Your task to perform on an android device: delete the emails in spam in the gmail app Image 0: 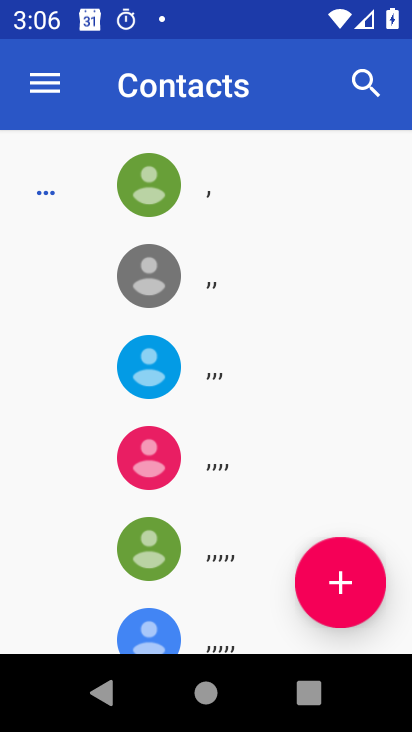
Step 0: press home button
Your task to perform on an android device: delete the emails in spam in the gmail app Image 1: 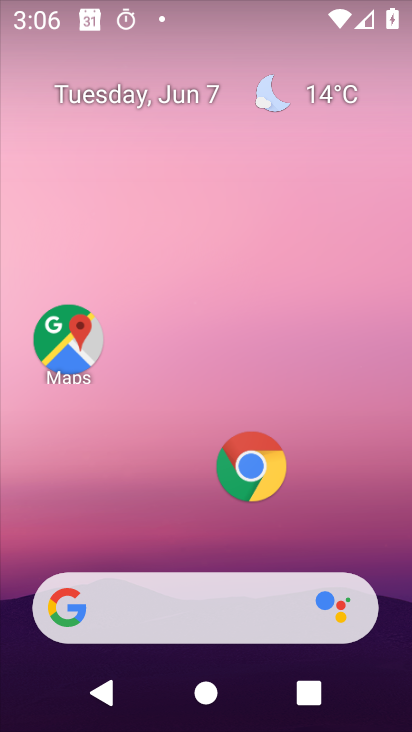
Step 1: drag from (161, 703) to (184, 153)
Your task to perform on an android device: delete the emails in spam in the gmail app Image 2: 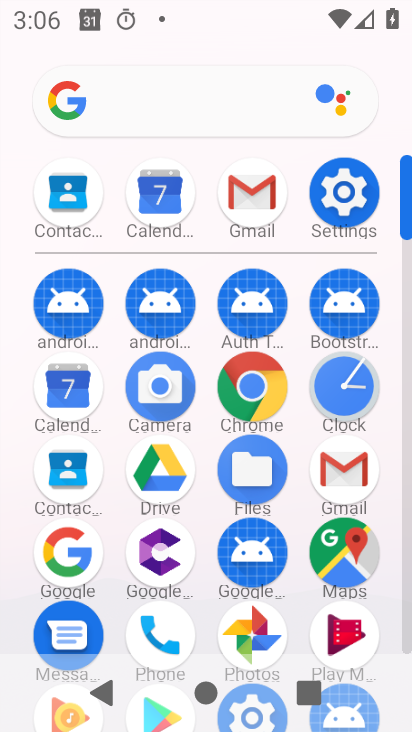
Step 2: click (257, 199)
Your task to perform on an android device: delete the emails in spam in the gmail app Image 3: 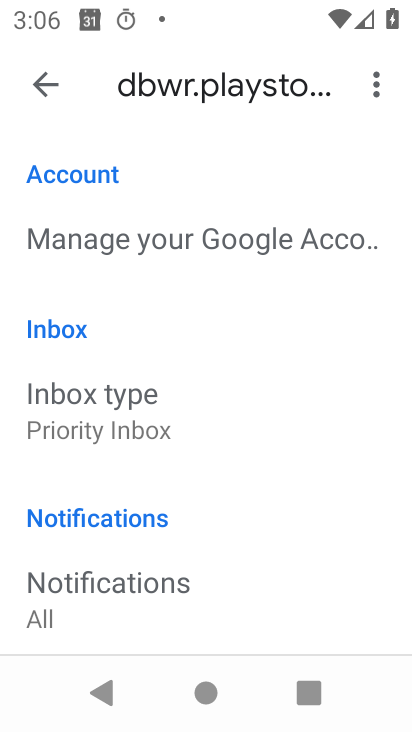
Step 3: click (44, 71)
Your task to perform on an android device: delete the emails in spam in the gmail app Image 4: 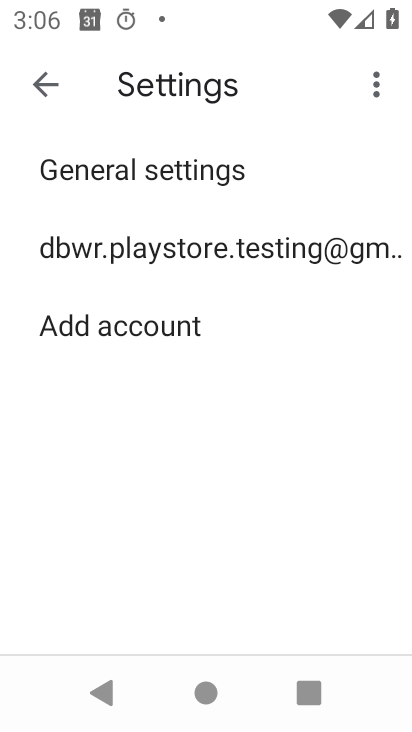
Step 4: click (45, 90)
Your task to perform on an android device: delete the emails in spam in the gmail app Image 5: 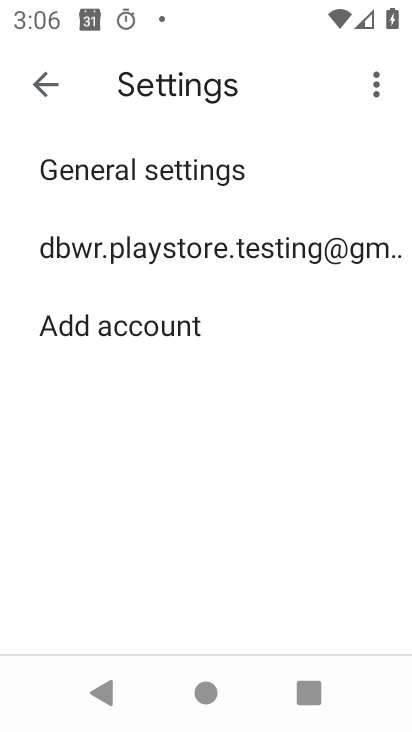
Step 5: click (42, 71)
Your task to perform on an android device: delete the emails in spam in the gmail app Image 6: 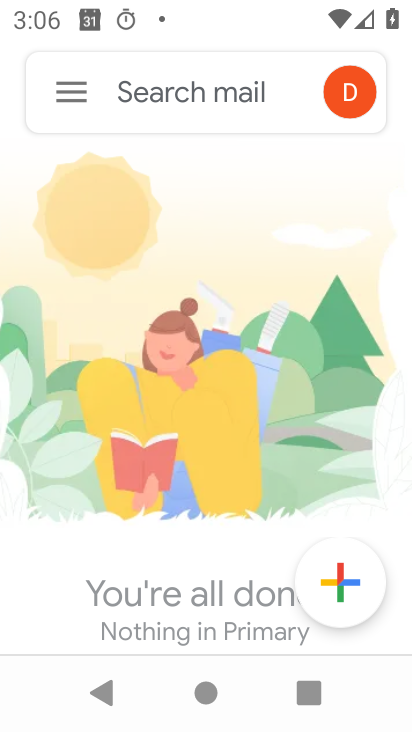
Step 6: click (60, 85)
Your task to perform on an android device: delete the emails in spam in the gmail app Image 7: 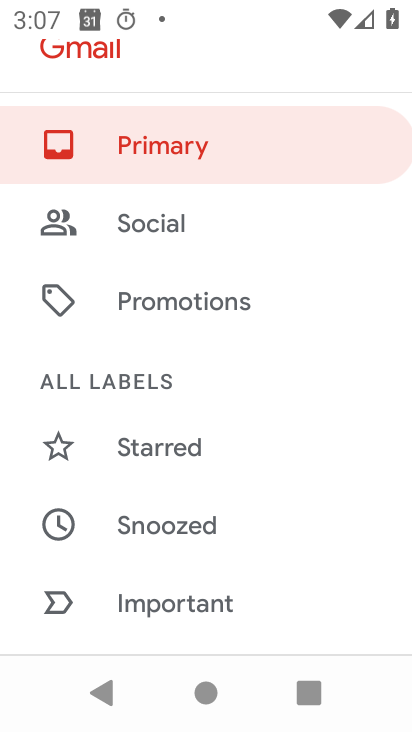
Step 7: drag from (306, 603) to (301, 170)
Your task to perform on an android device: delete the emails in spam in the gmail app Image 8: 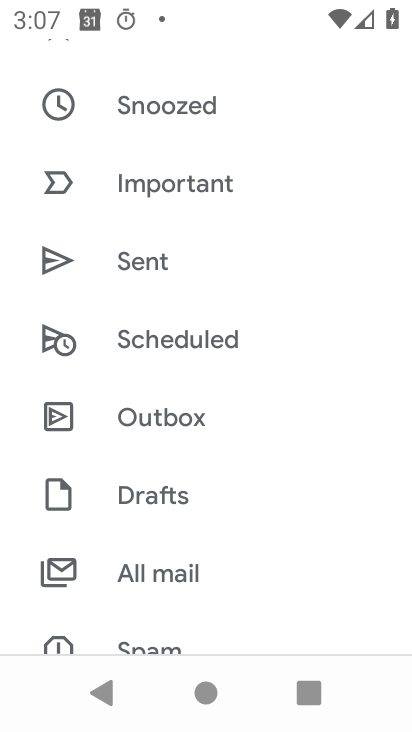
Step 8: drag from (293, 594) to (281, 280)
Your task to perform on an android device: delete the emails in spam in the gmail app Image 9: 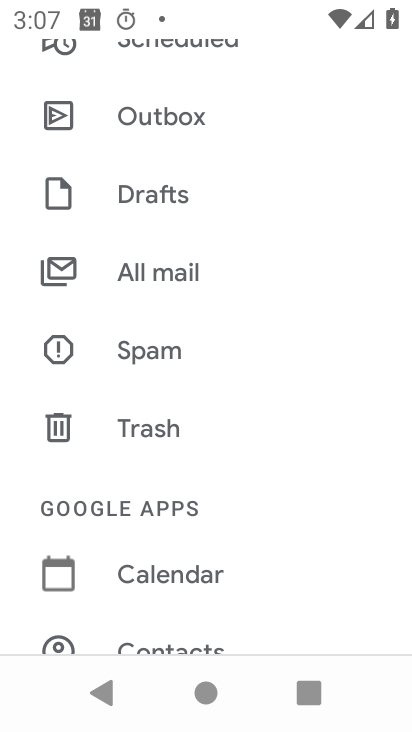
Step 9: click (149, 352)
Your task to perform on an android device: delete the emails in spam in the gmail app Image 10: 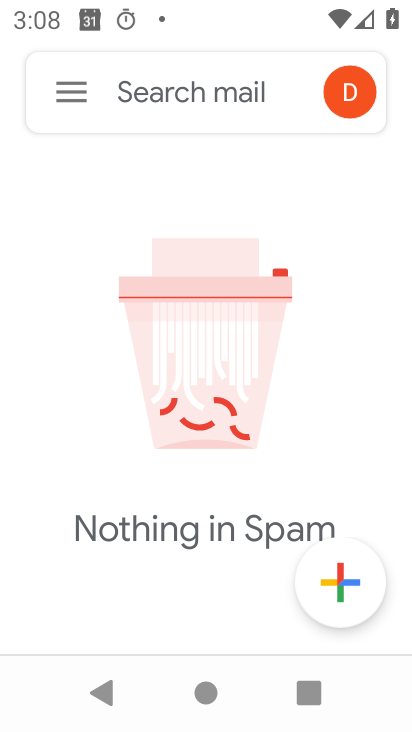
Step 10: task complete